Your task to perform on an android device: Toggle the flashlight Image 0: 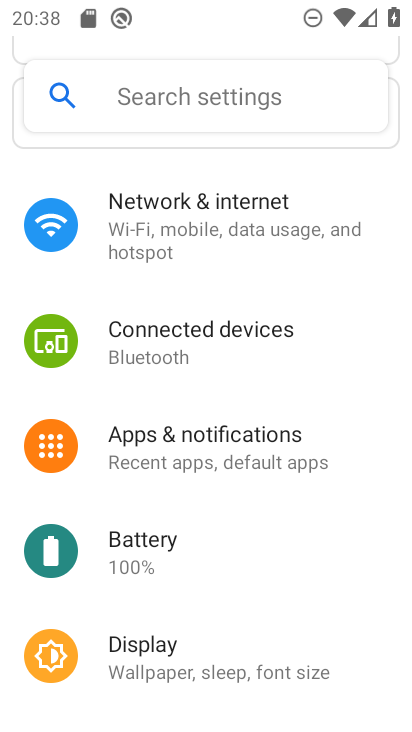
Step 0: press home button
Your task to perform on an android device: Toggle the flashlight Image 1: 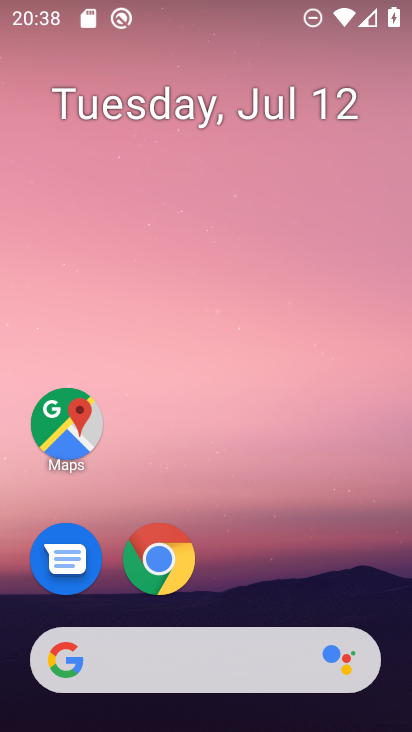
Step 1: drag from (241, 1) to (245, 400)
Your task to perform on an android device: Toggle the flashlight Image 2: 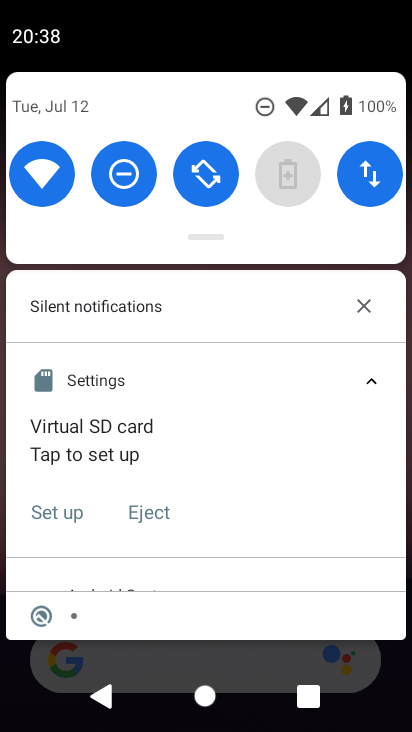
Step 2: drag from (168, 102) to (185, 387)
Your task to perform on an android device: Toggle the flashlight Image 3: 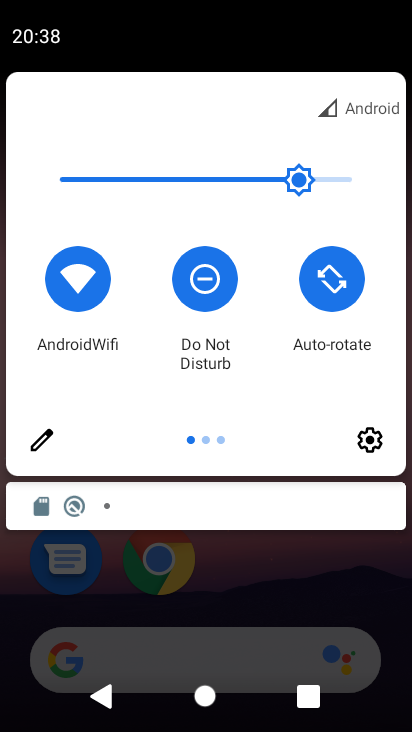
Step 3: click (43, 437)
Your task to perform on an android device: Toggle the flashlight Image 4: 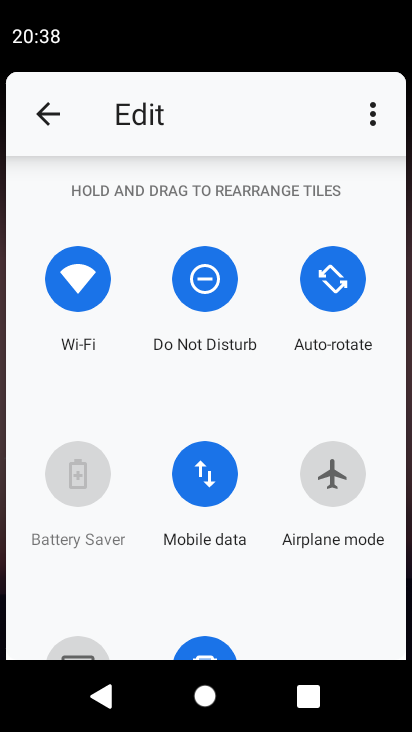
Step 4: task complete